Your task to perform on an android device: Set the phone to "Do not disturb". Image 0: 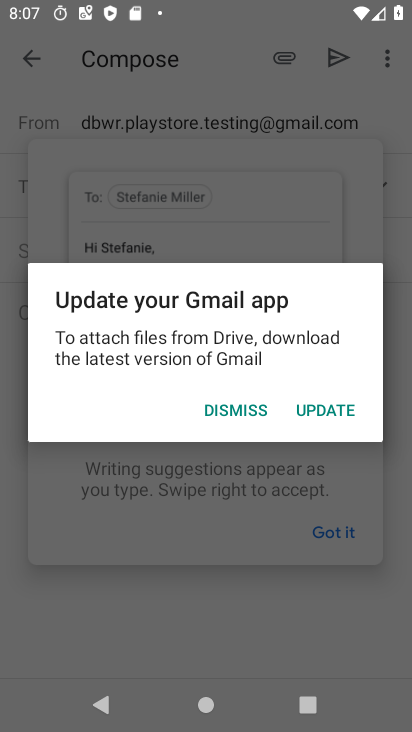
Step 0: press home button
Your task to perform on an android device: Set the phone to "Do not disturb". Image 1: 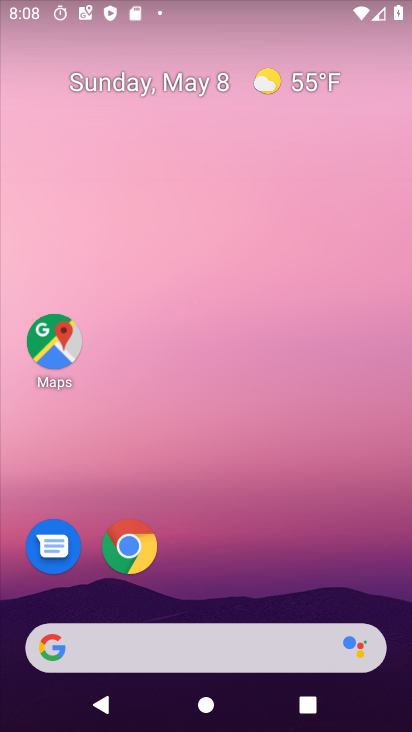
Step 1: drag from (230, 540) to (282, 121)
Your task to perform on an android device: Set the phone to "Do not disturb". Image 2: 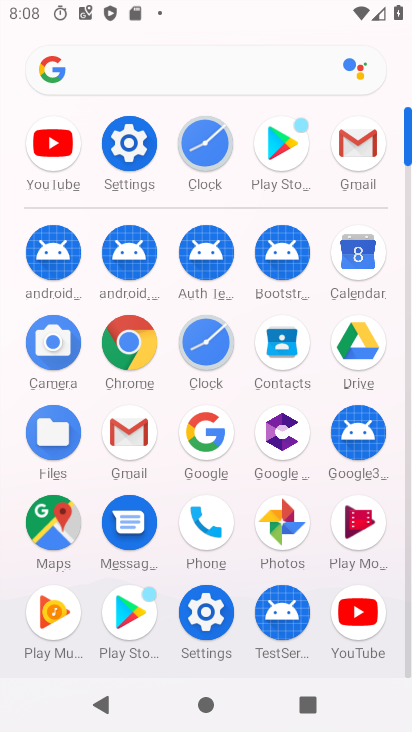
Step 2: click (141, 148)
Your task to perform on an android device: Set the phone to "Do not disturb". Image 3: 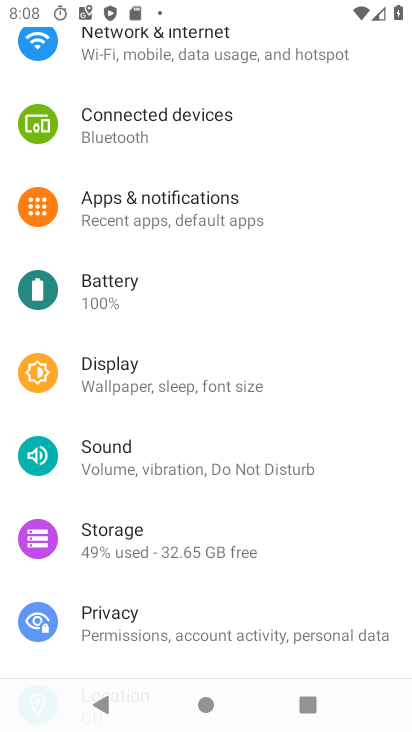
Step 3: click (151, 455)
Your task to perform on an android device: Set the phone to "Do not disturb". Image 4: 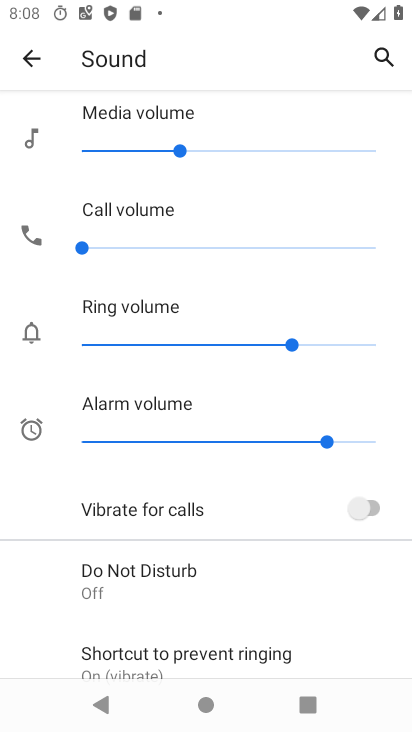
Step 4: click (151, 582)
Your task to perform on an android device: Set the phone to "Do not disturb". Image 5: 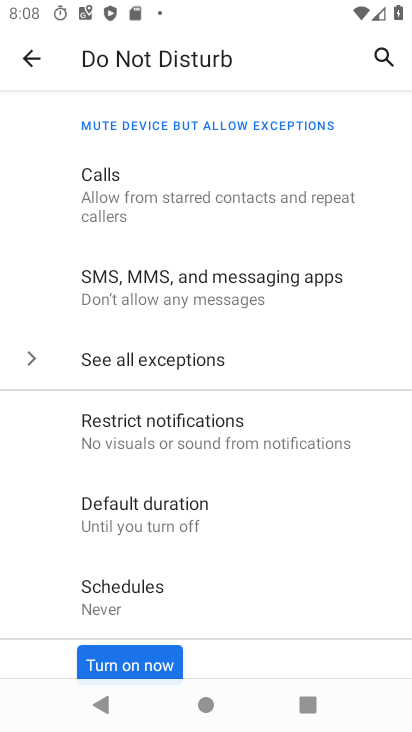
Step 5: click (151, 656)
Your task to perform on an android device: Set the phone to "Do not disturb". Image 6: 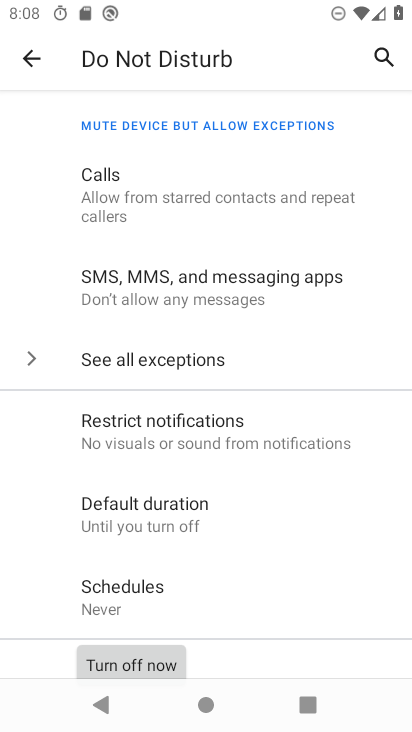
Step 6: task complete